Your task to perform on an android device: Open Yahoo.com Image 0: 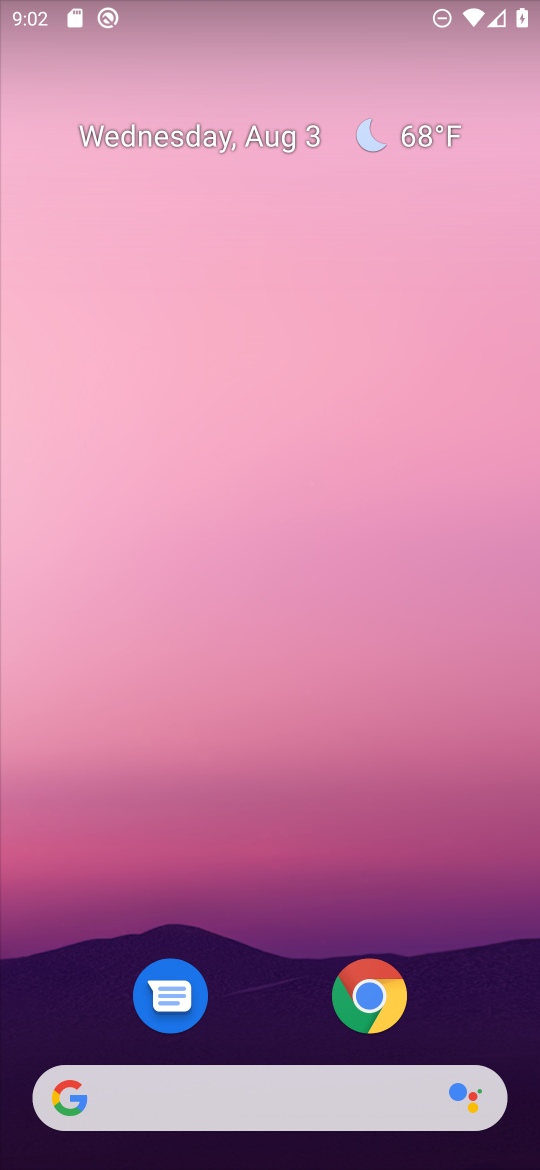
Step 0: click (352, 1089)
Your task to perform on an android device: Open Yahoo.com Image 1: 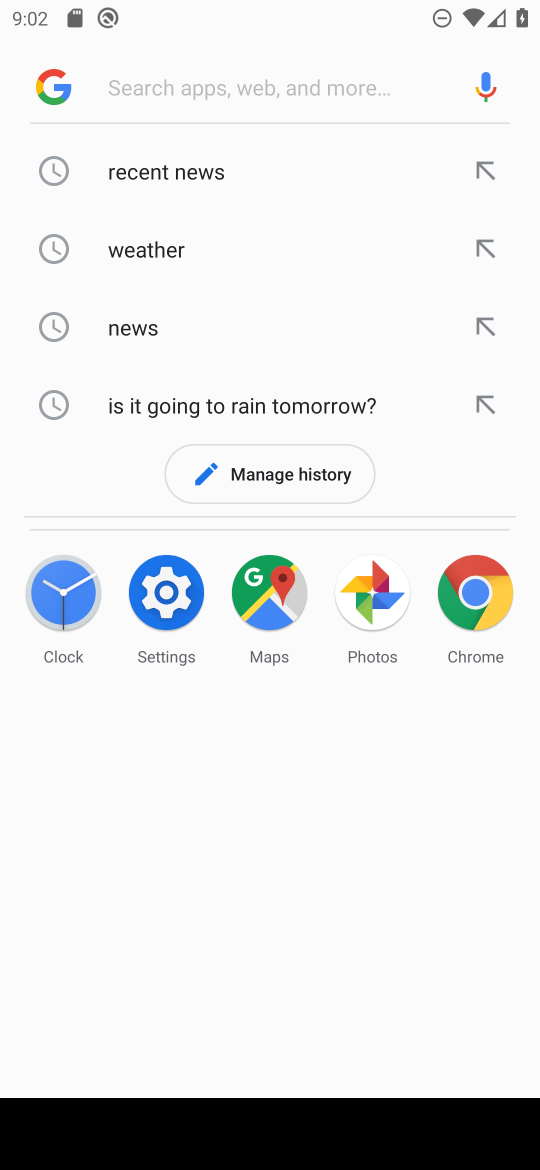
Step 1: type "yahoo.com"
Your task to perform on an android device: Open Yahoo.com Image 2: 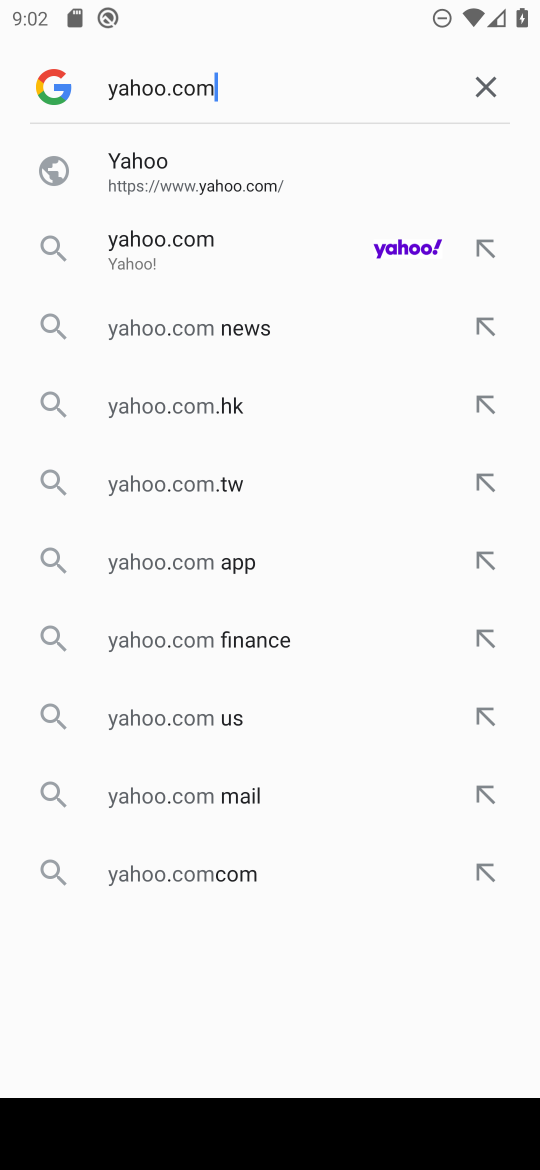
Step 2: click (368, 240)
Your task to perform on an android device: Open Yahoo.com Image 3: 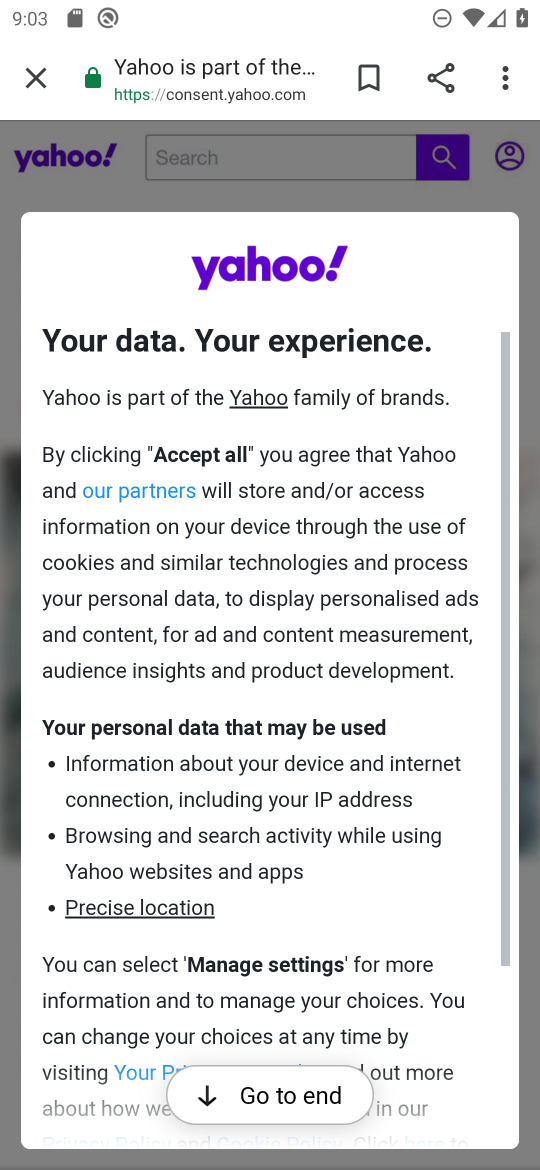
Step 3: click (303, 1096)
Your task to perform on an android device: Open Yahoo.com Image 4: 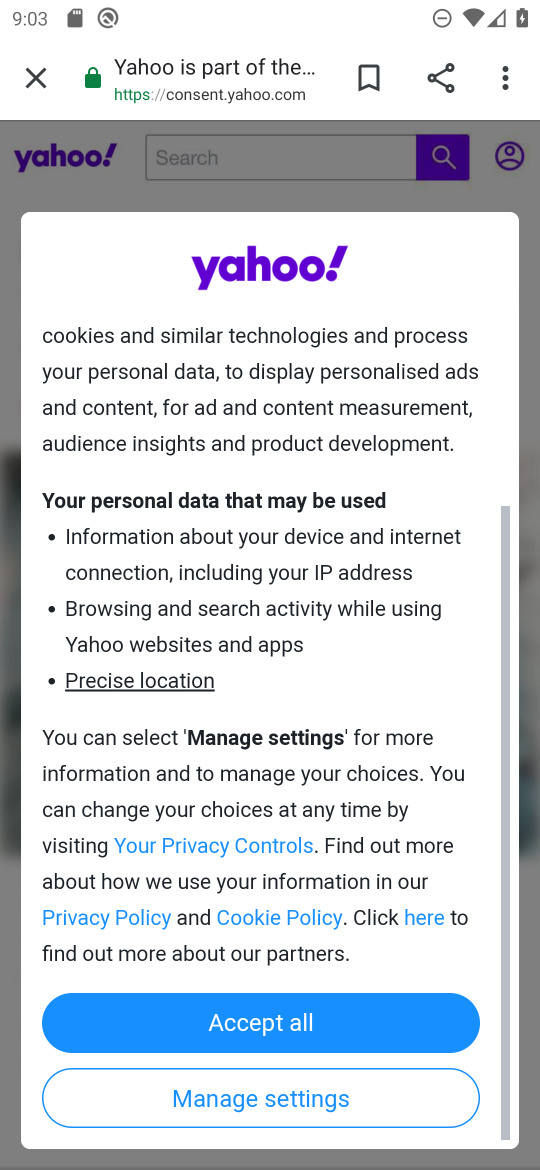
Step 4: click (342, 1015)
Your task to perform on an android device: Open Yahoo.com Image 5: 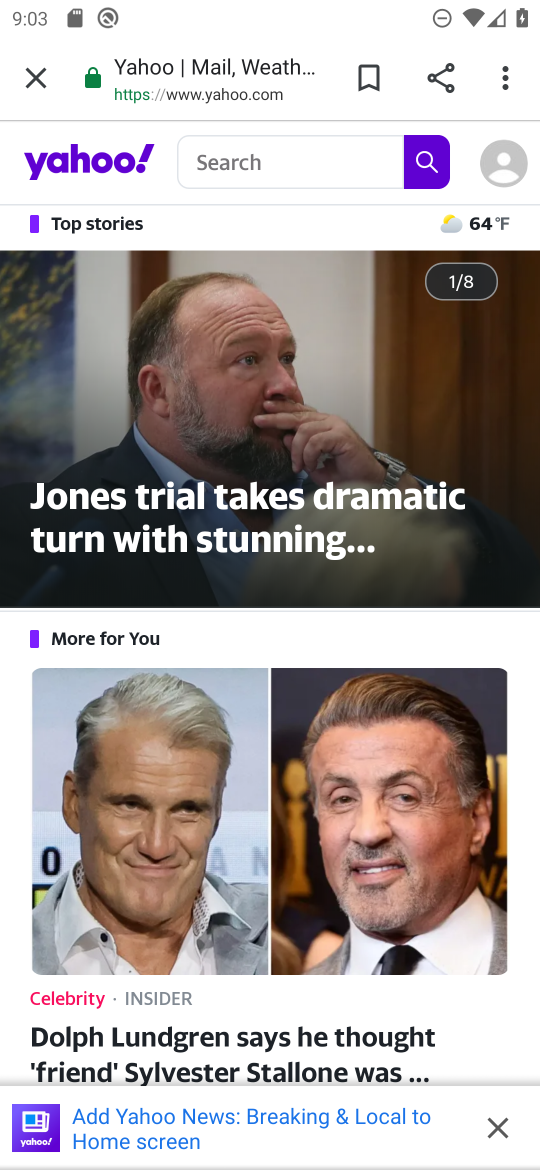
Step 5: task complete